Your task to perform on an android device: Open Google Chrome and open the bookmarks view Image 0: 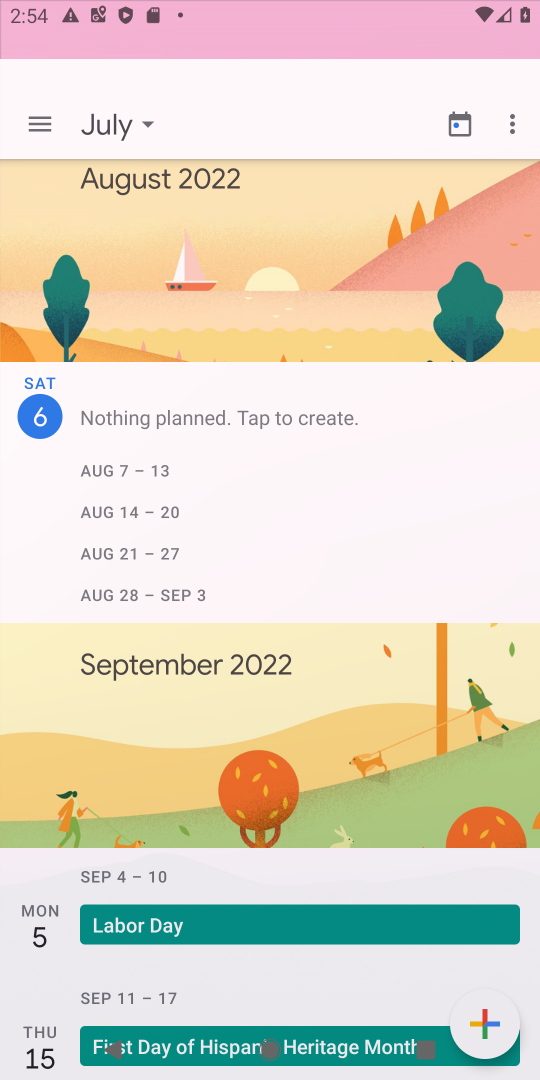
Step 0: press back button
Your task to perform on an android device: Open Google Chrome and open the bookmarks view Image 1: 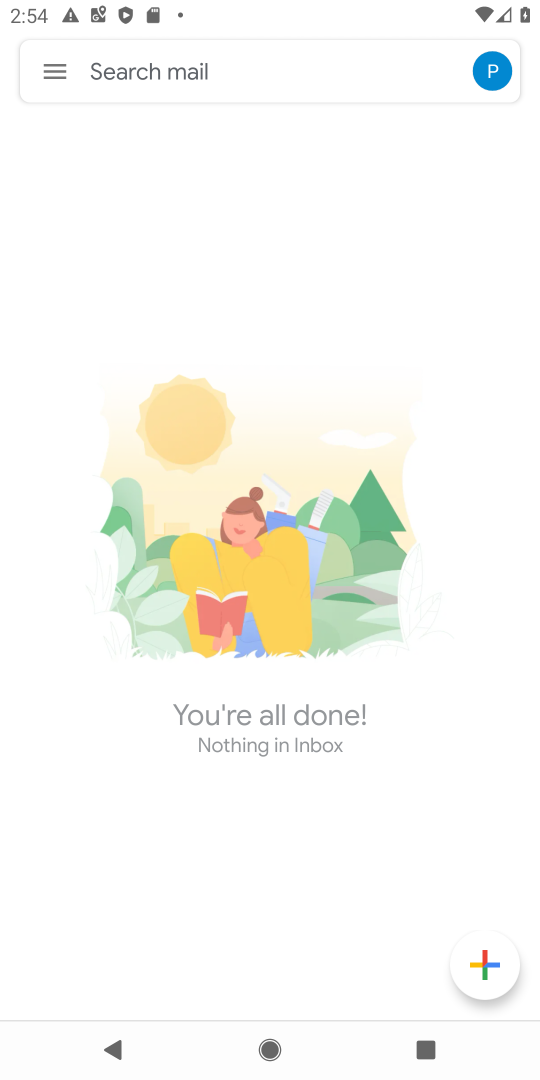
Step 1: press back button
Your task to perform on an android device: Open Google Chrome and open the bookmarks view Image 2: 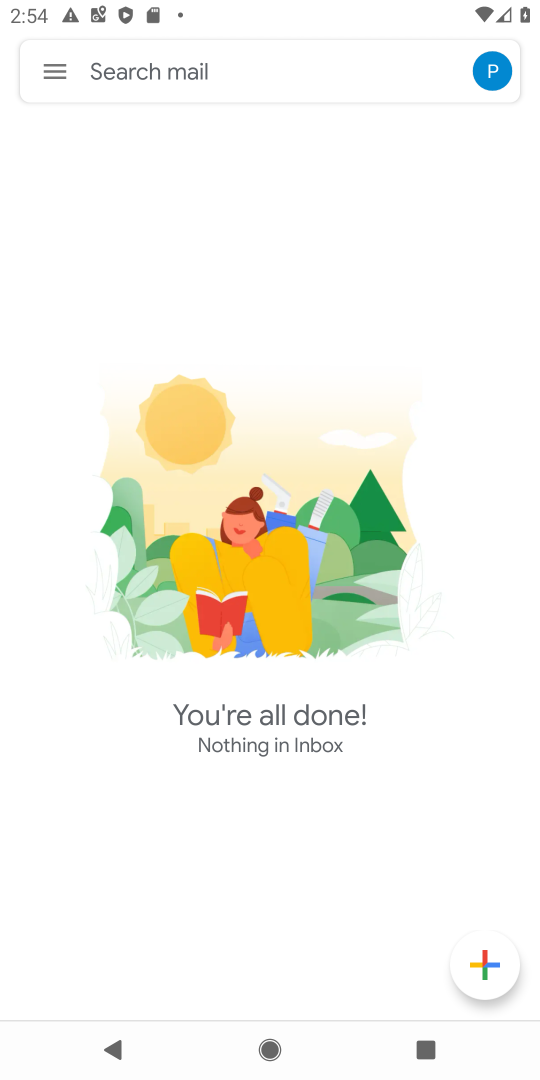
Step 2: press back button
Your task to perform on an android device: Open Google Chrome and open the bookmarks view Image 3: 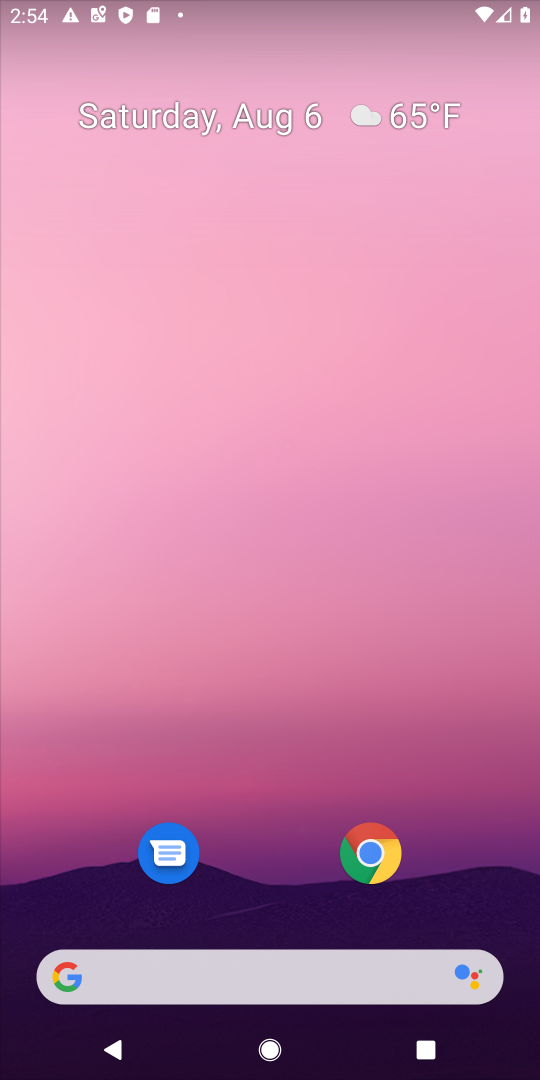
Step 3: click (382, 850)
Your task to perform on an android device: Open Google Chrome and open the bookmarks view Image 4: 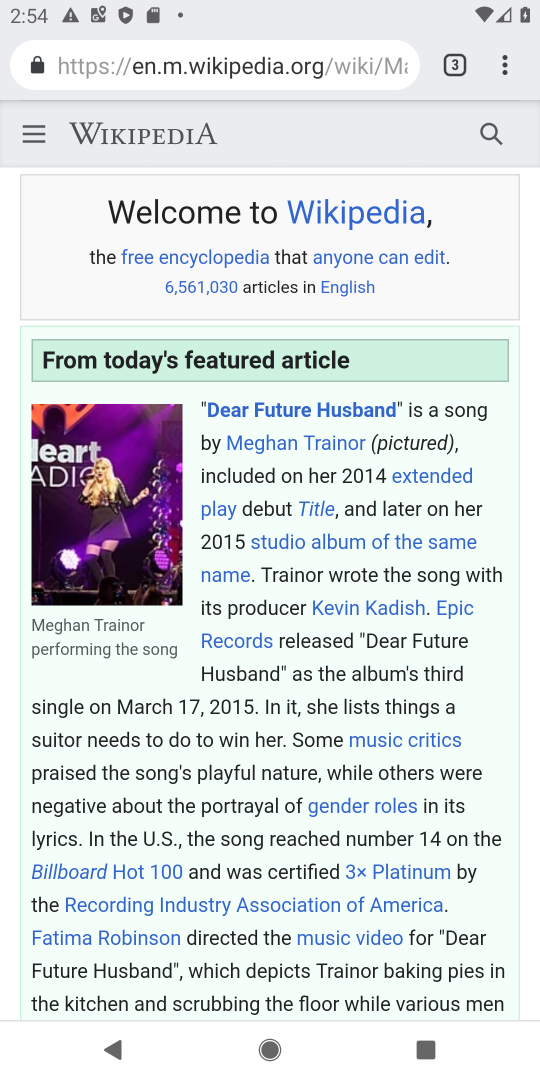
Step 4: click (509, 67)
Your task to perform on an android device: Open Google Chrome and open the bookmarks view Image 5: 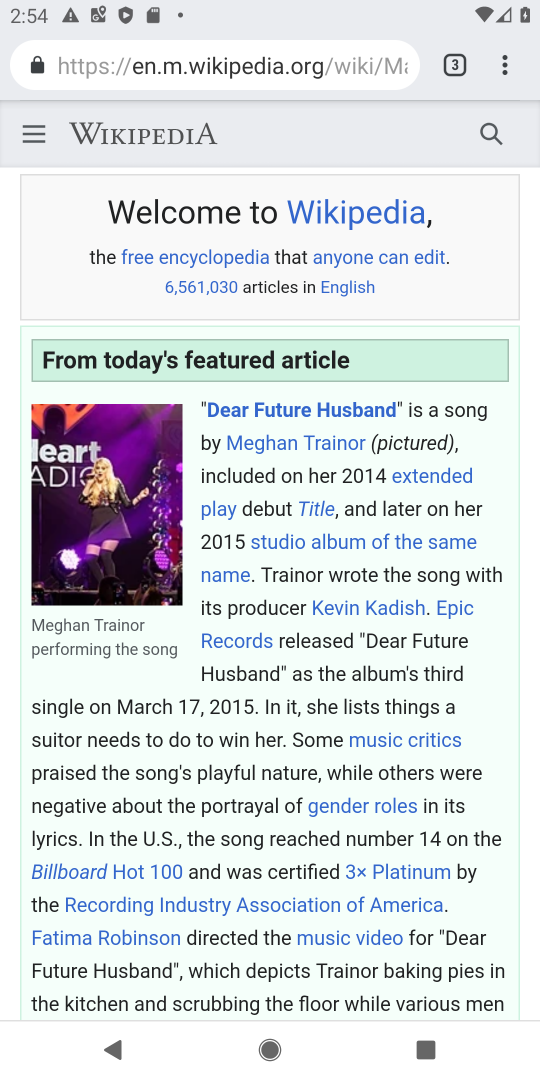
Step 5: task complete